Your task to perform on an android device: change notifications settings Image 0: 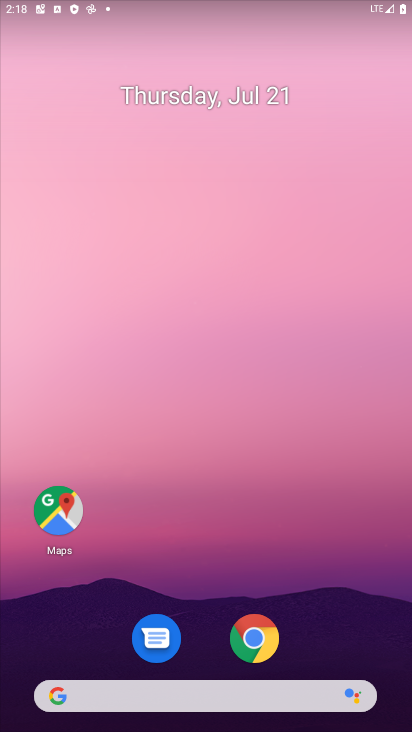
Step 0: drag from (152, 723) to (193, 257)
Your task to perform on an android device: change notifications settings Image 1: 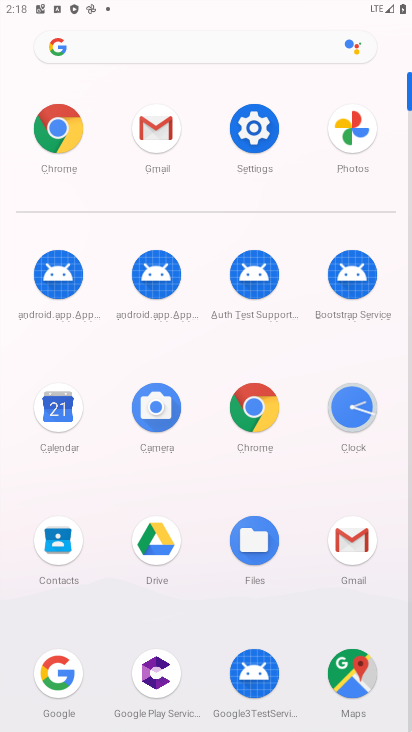
Step 1: click (262, 112)
Your task to perform on an android device: change notifications settings Image 2: 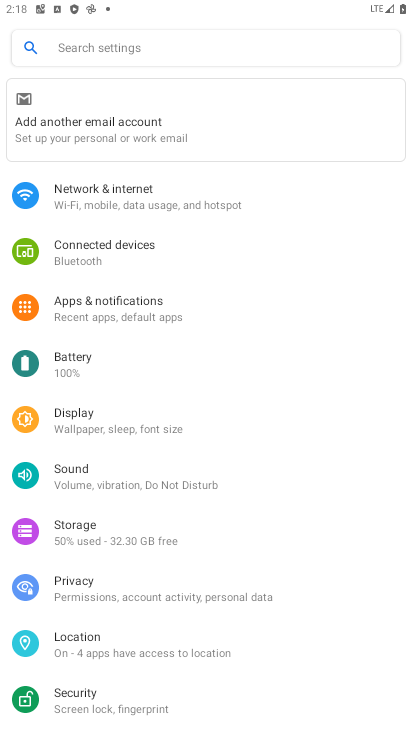
Step 2: click (143, 316)
Your task to perform on an android device: change notifications settings Image 3: 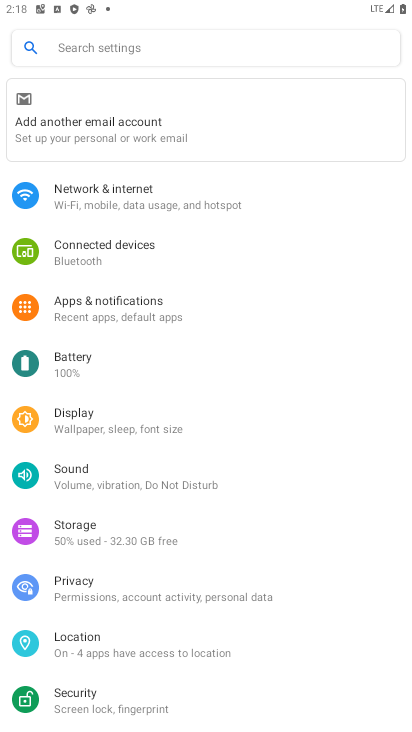
Step 3: click (143, 316)
Your task to perform on an android device: change notifications settings Image 4: 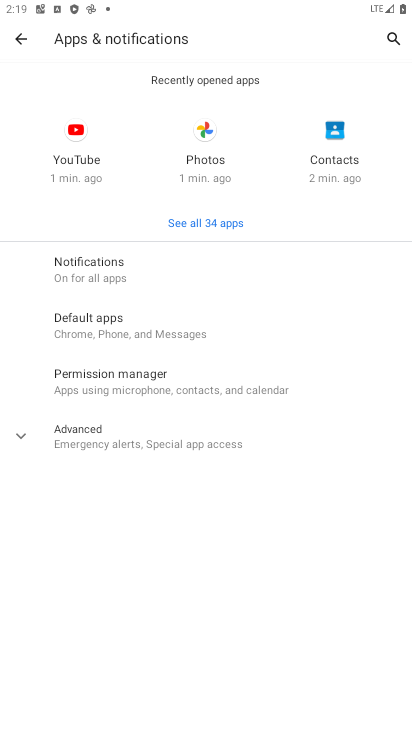
Step 4: click (226, 270)
Your task to perform on an android device: change notifications settings Image 5: 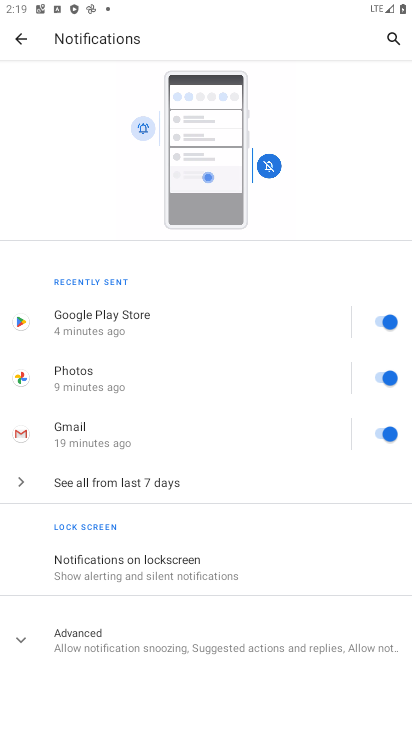
Step 5: click (393, 322)
Your task to perform on an android device: change notifications settings Image 6: 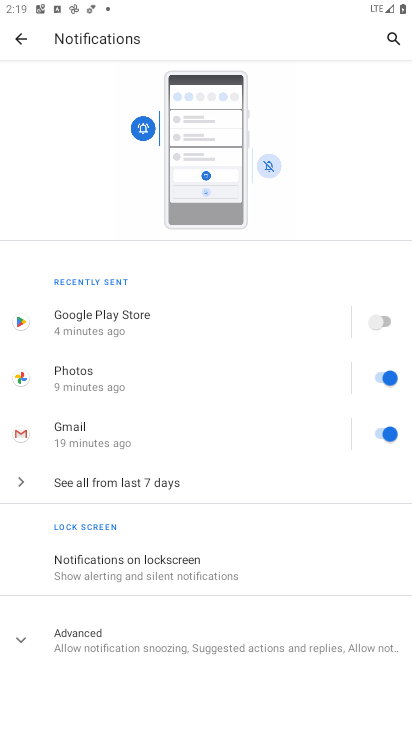
Step 6: task complete